Your task to perform on an android device: Go to Wikipedia Image 0: 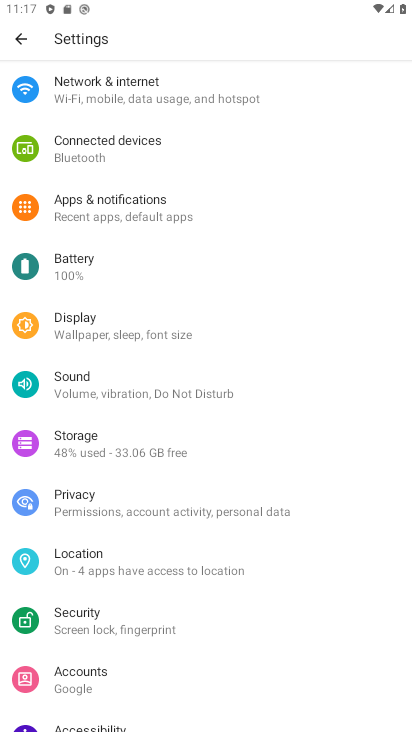
Step 0: press home button
Your task to perform on an android device: Go to Wikipedia Image 1: 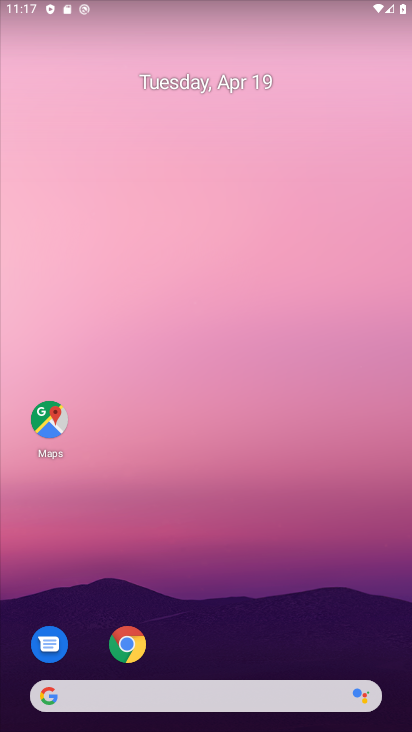
Step 1: click (123, 643)
Your task to perform on an android device: Go to Wikipedia Image 2: 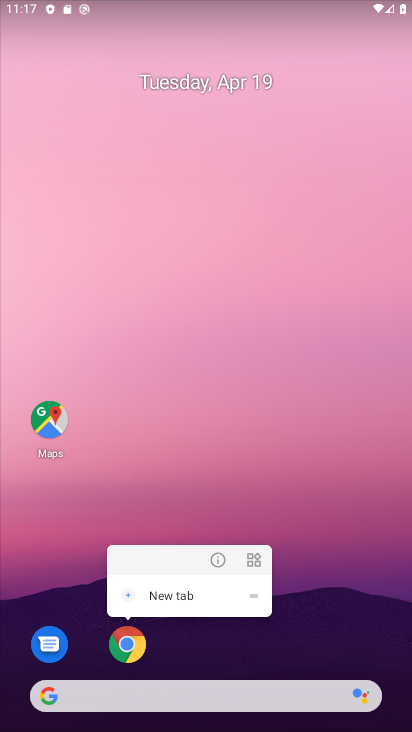
Step 2: click (123, 643)
Your task to perform on an android device: Go to Wikipedia Image 3: 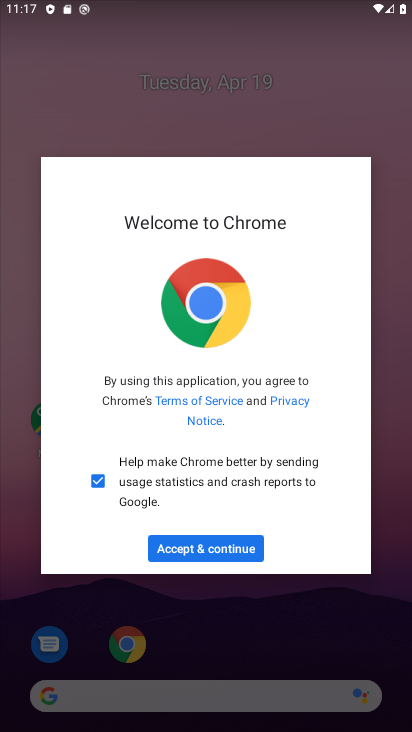
Step 3: click (182, 544)
Your task to perform on an android device: Go to Wikipedia Image 4: 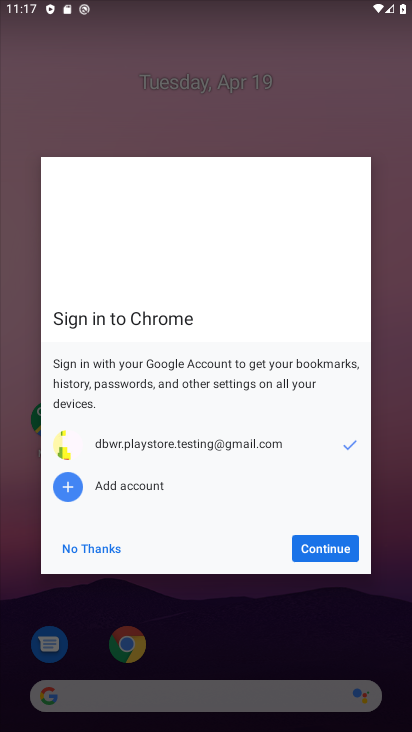
Step 4: click (330, 542)
Your task to perform on an android device: Go to Wikipedia Image 5: 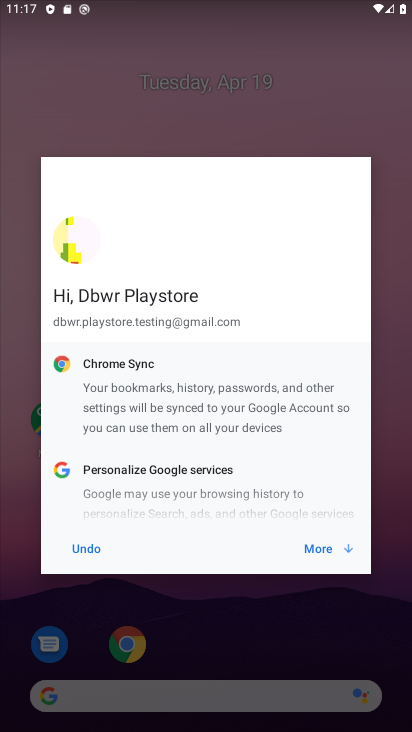
Step 5: click (330, 542)
Your task to perform on an android device: Go to Wikipedia Image 6: 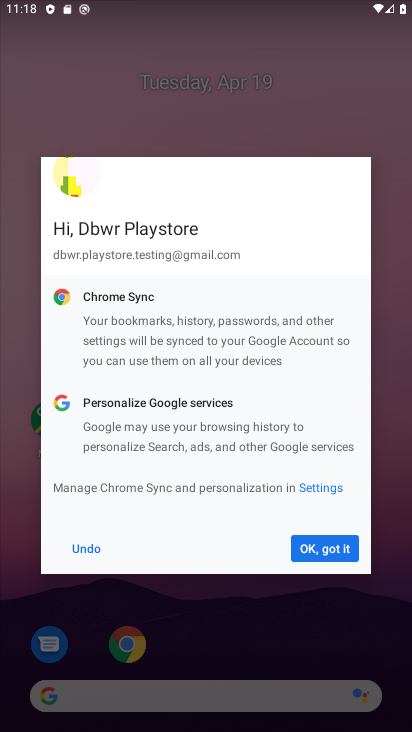
Step 6: click (330, 542)
Your task to perform on an android device: Go to Wikipedia Image 7: 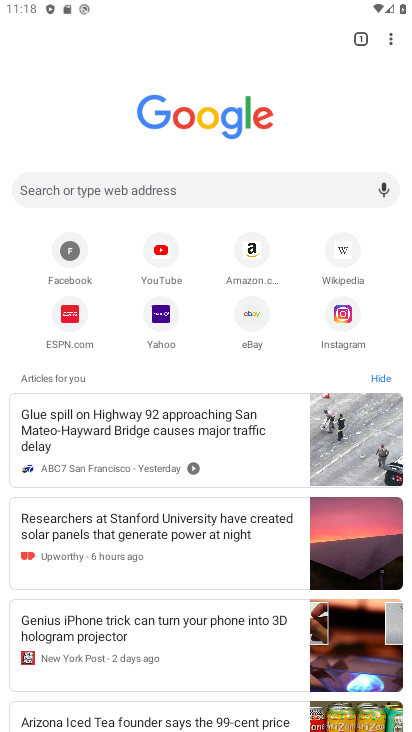
Step 7: click (343, 245)
Your task to perform on an android device: Go to Wikipedia Image 8: 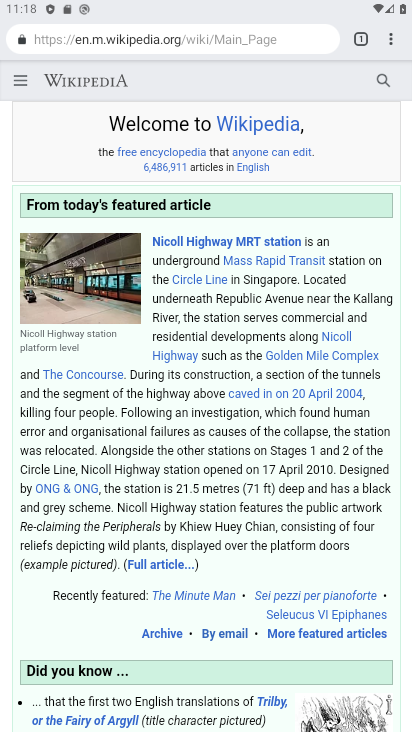
Step 8: task complete